Your task to perform on an android device: delete location history Image 0: 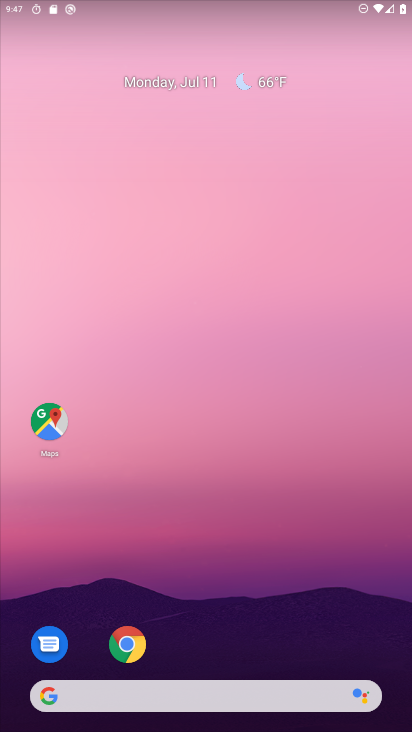
Step 0: drag from (331, 606) to (211, 149)
Your task to perform on an android device: delete location history Image 1: 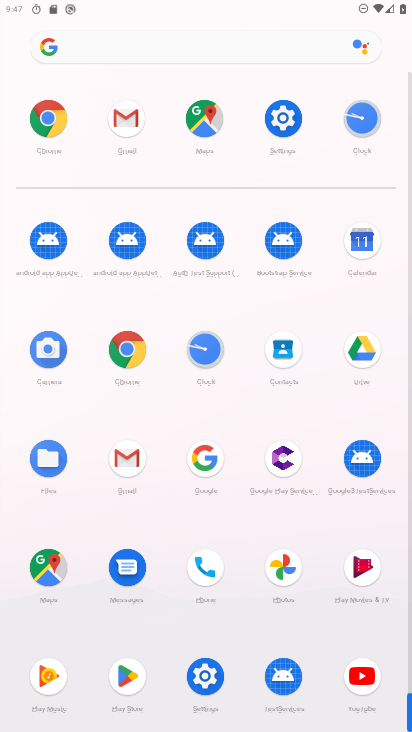
Step 1: click (210, 121)
Your task to perform on an android device: delete location history Image 2: 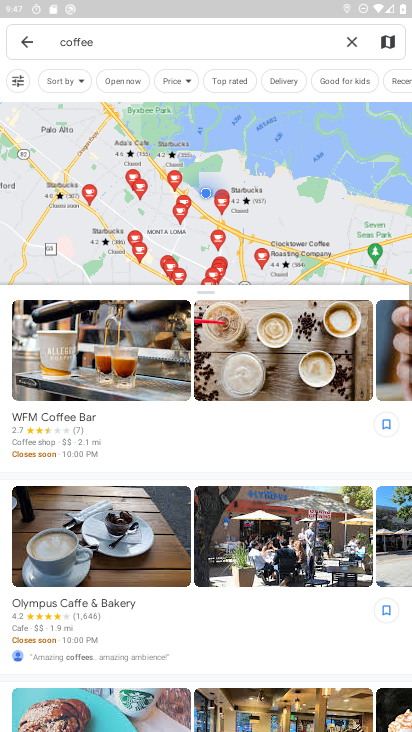
Step 2: click (30, 38)
Your task to perform on an android device: delete location history Image 3: 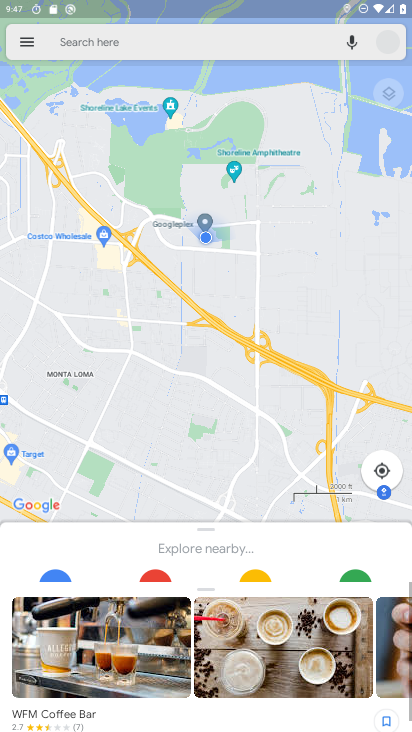
Step 3: click (30, 38)
Your task to perform on an android device: delete location history Image 4: 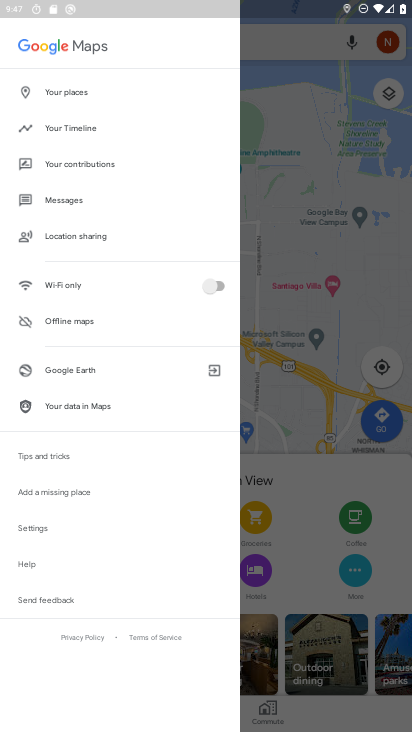
Step 4: click (36, 520)
Your task to perform on an android device: delete location history Image 5: 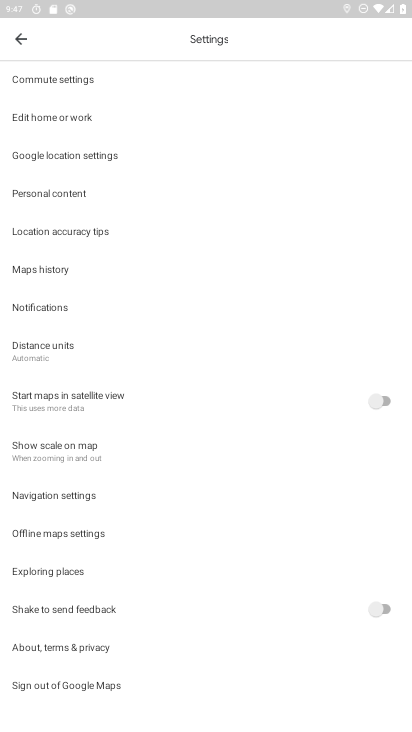
Step 5: click (63, 270)
Your task to perform on an android device: delete location history Image 6: 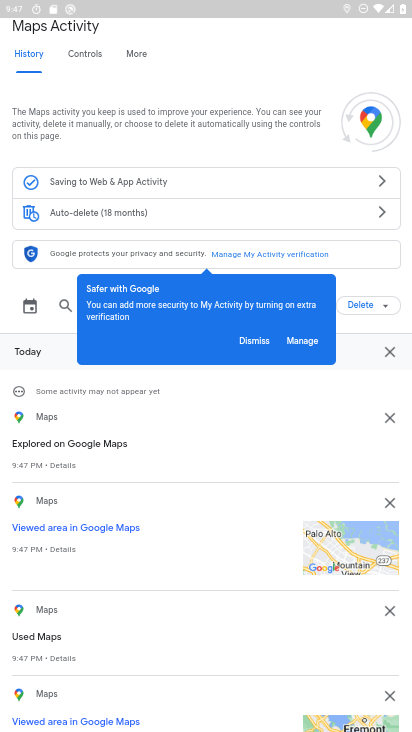
Step 6: click (364, 306)
Your task to perform on an android device: delete location history Image 7: 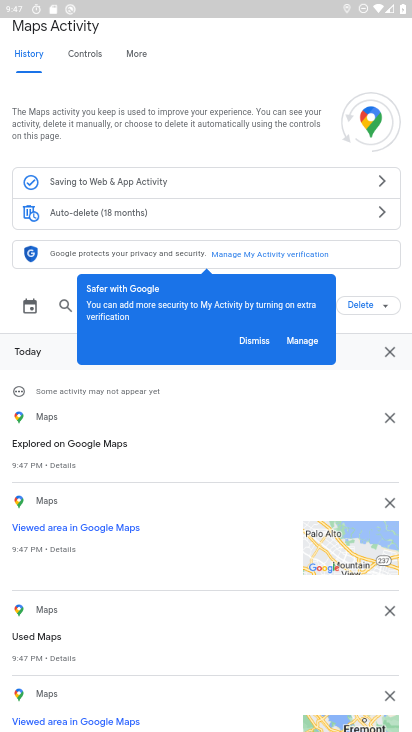
Step 7: click (374, 301)
Your task to perform on an android device: delete location history Image 8: 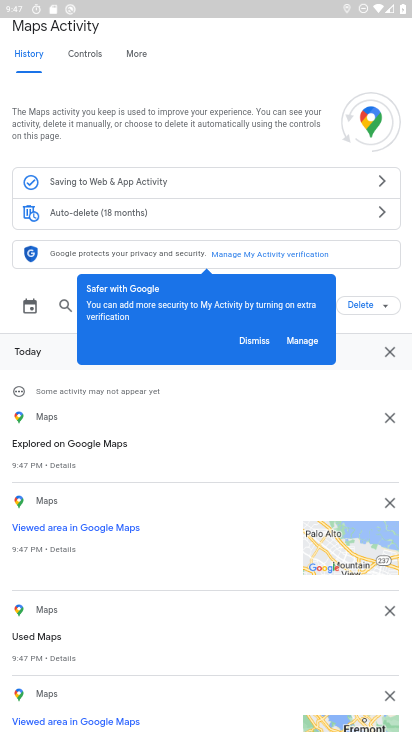
Step 8: click (249, 342)
Your task to perform on an android device: delete location history Image 9: 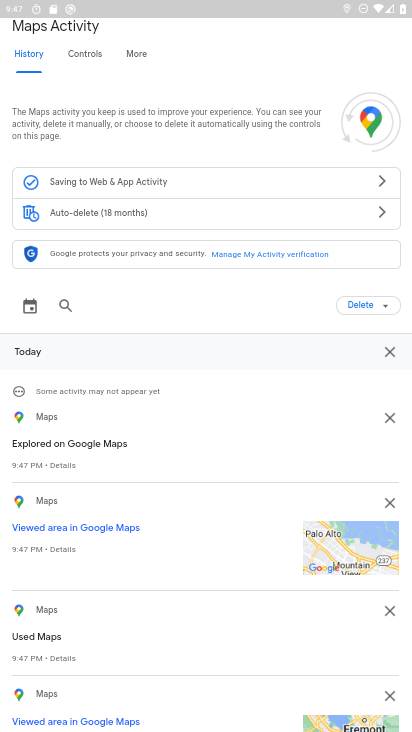
Step 9: click (384, 305)
Your task to perform on an android device: delete location history Image 10: 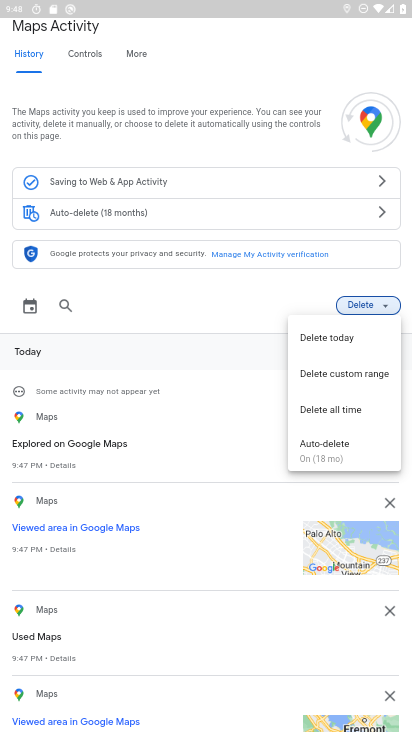
Step 10: click (345, 407)
Your task to perform on an android device: delete location history Image 11: 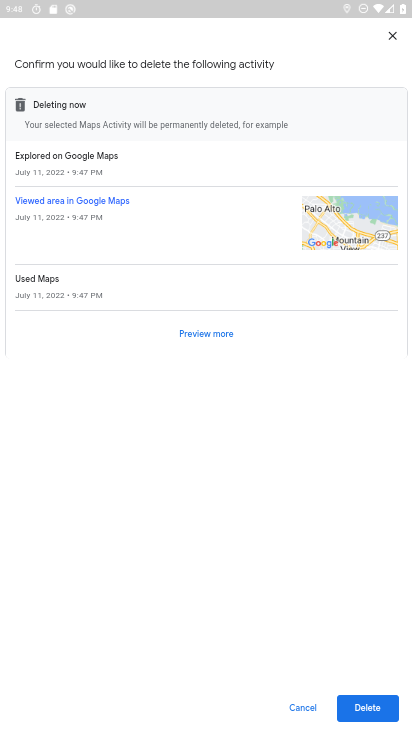
Step 11: click (372, 704)
Your task to perform on an android device: delete location history Image 12: 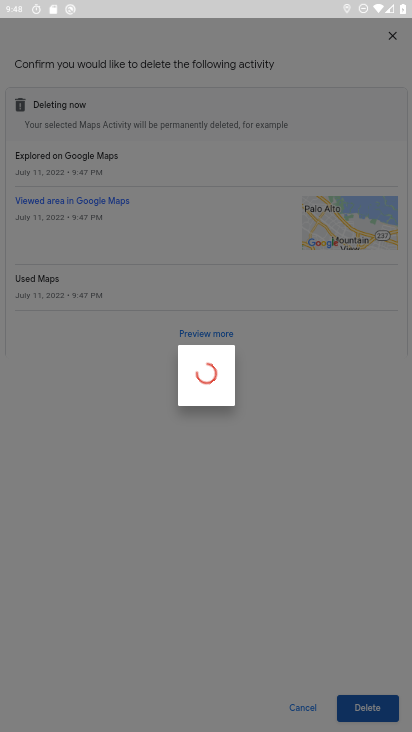
Step 12: click (369, 712)
Your task to perform on an android device: delete location history Image 13: 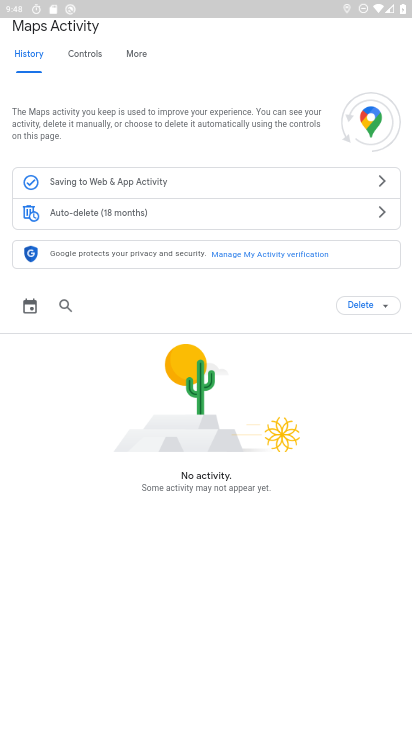
Step 13: task complete